Your task to perform on an android device: Clear all items from cart on target.com. Search for logitech g910 on target.com, select the first entry, add it to the cart, then select checkout. Image 0: 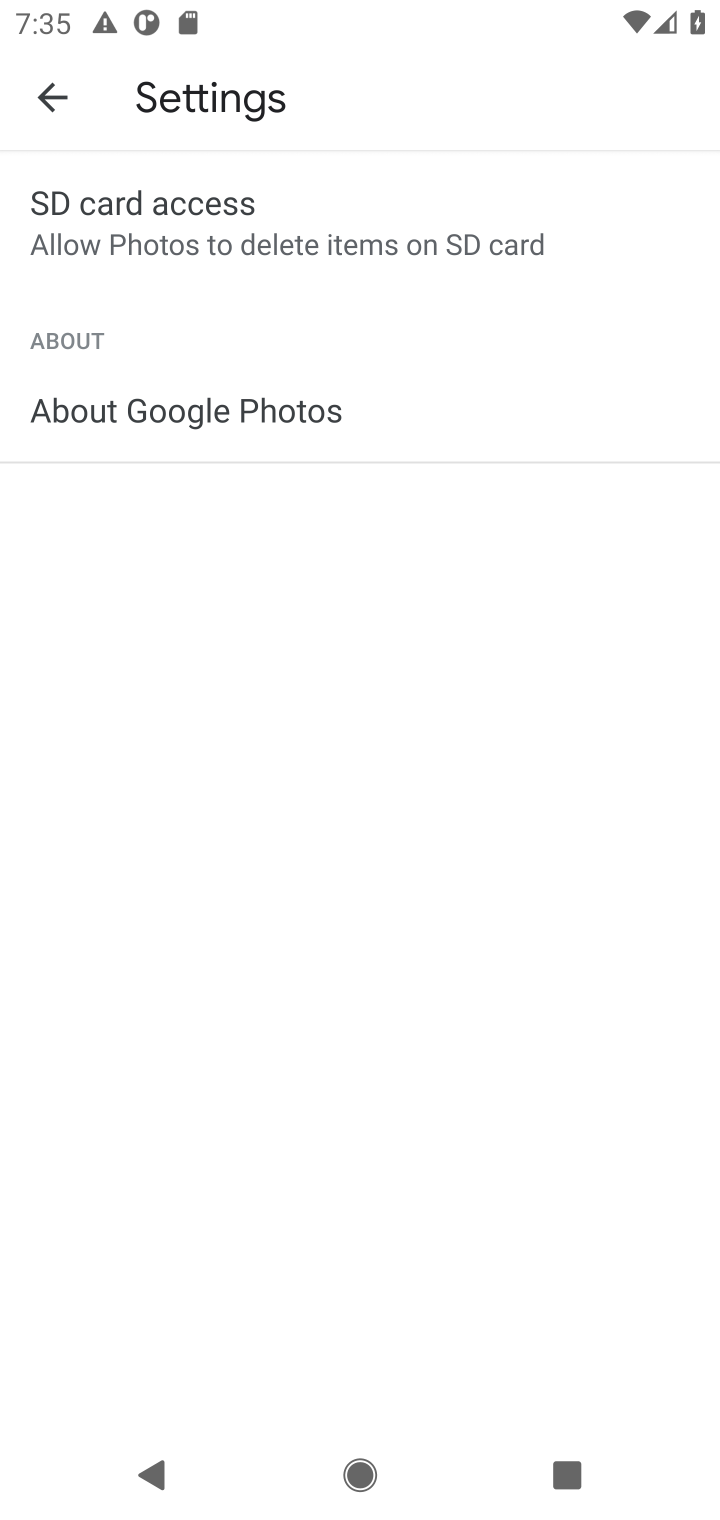
Step 0: press home button
Your task to perform on an android device: Clear all items from cart on target.com. Search for logitech g910 on target.com, select the first entry, add it to the cart, then select checkout. Image 1: 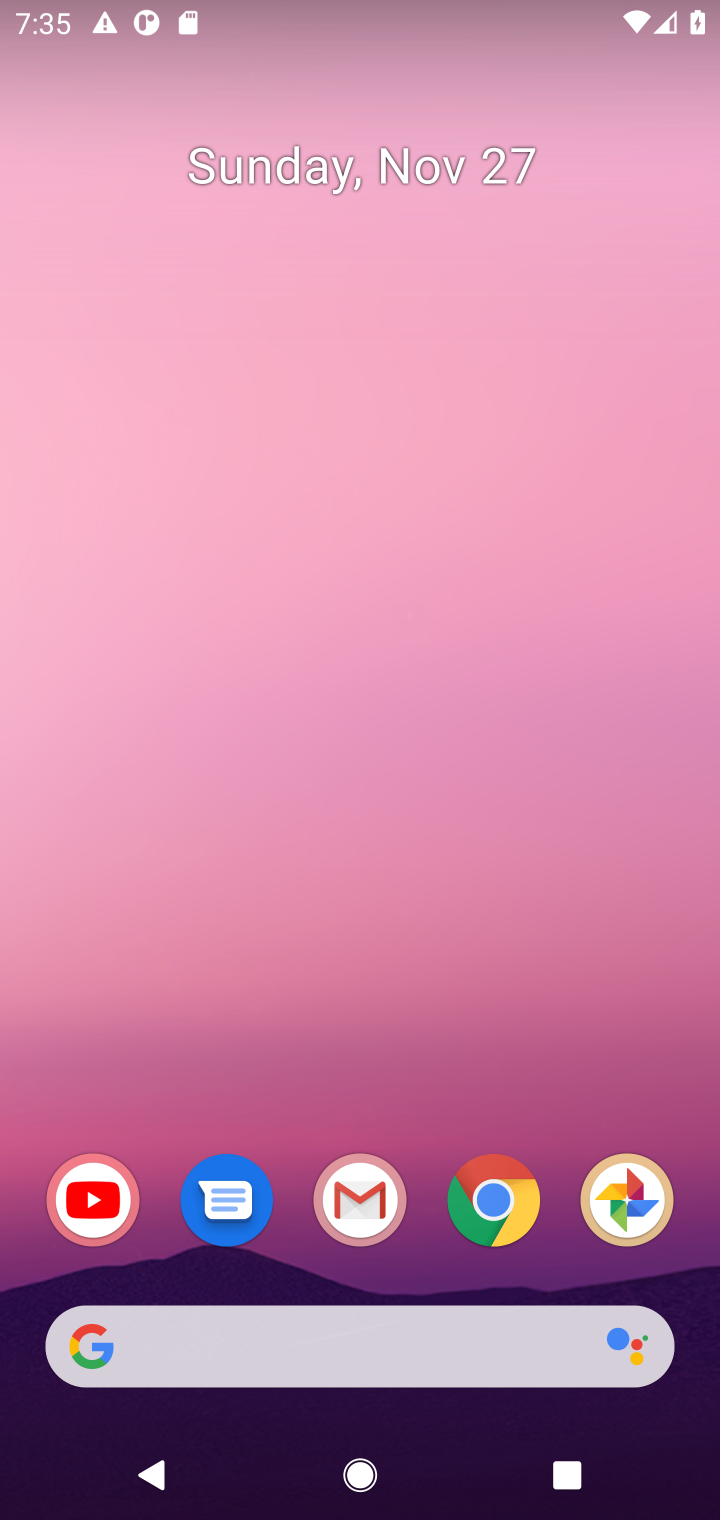
Step 1: click (499, 1204)
Your task to perform on an android device: Clear all items from cart on target.com. Search for logitech g910 on target.com, select the first entry, add it to the cart, then select checkout. Image 2: 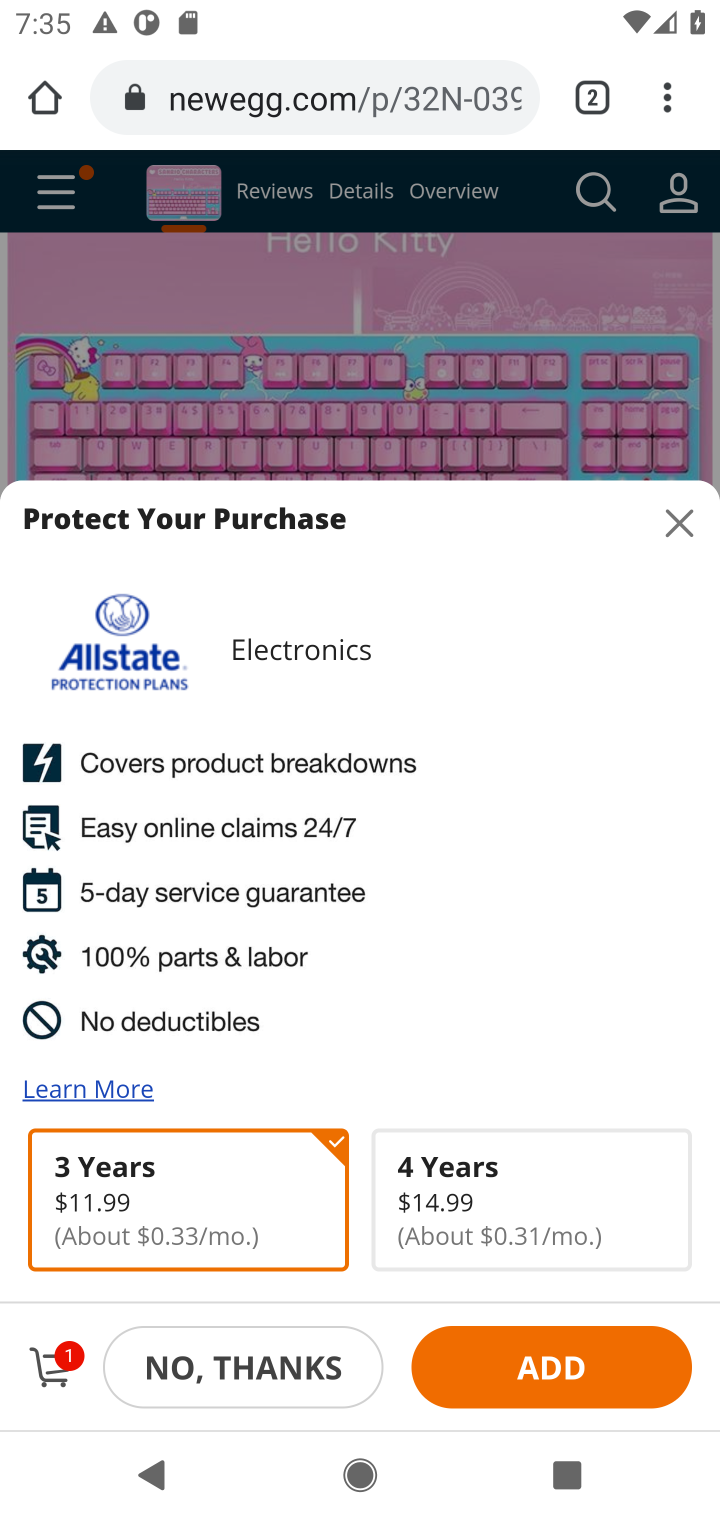
Step 2: click (283, 108)
Your task to perform on an android device: Clear all items from cart on target.com. Search for logitech g910 on target.com, select the first entry, add it to the cart, then select checkout. Image 3: 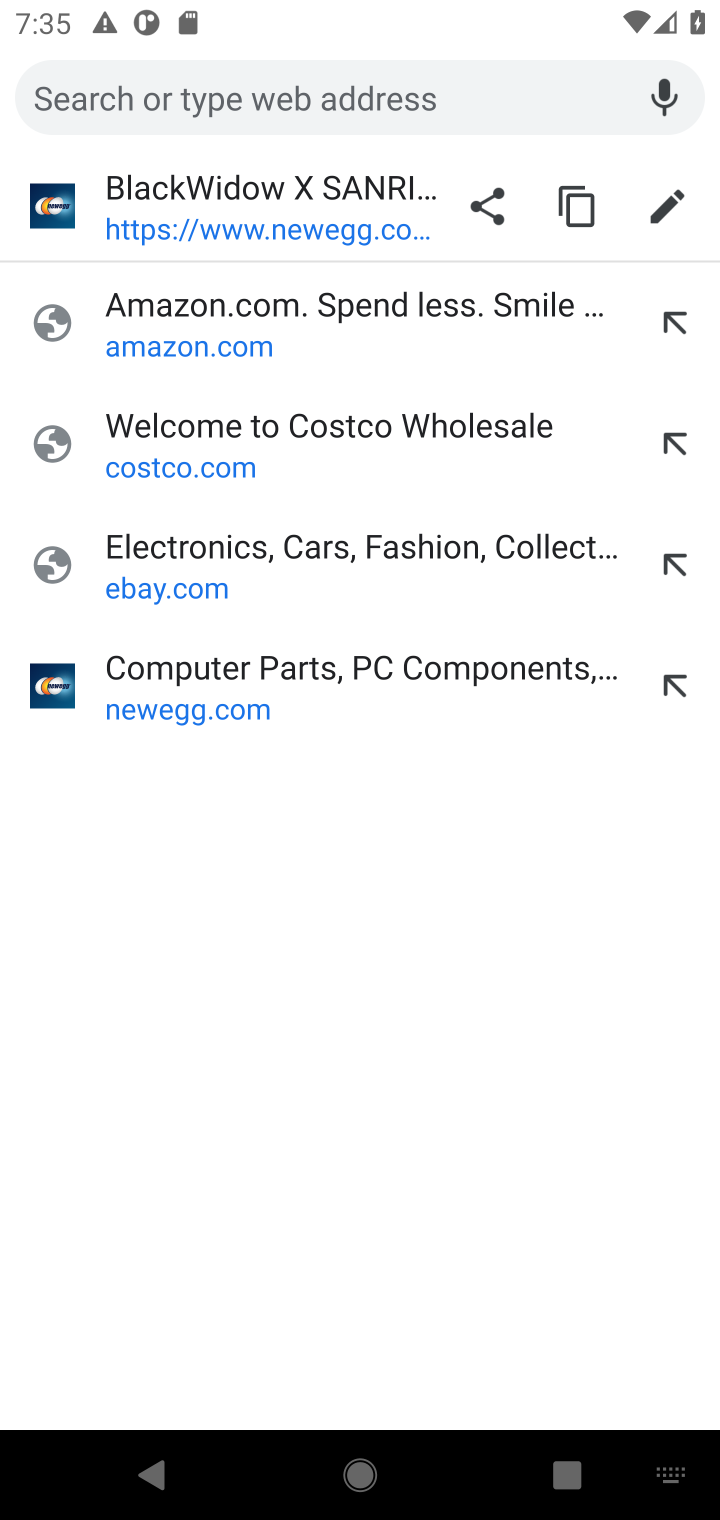
Step 3: type "target.com"
Your task to perform on an android device: Clear all items from cart on target.com. Search for logitech g910 on target.com, select the first entry, add it to the cart, then select checkout. Image 4: 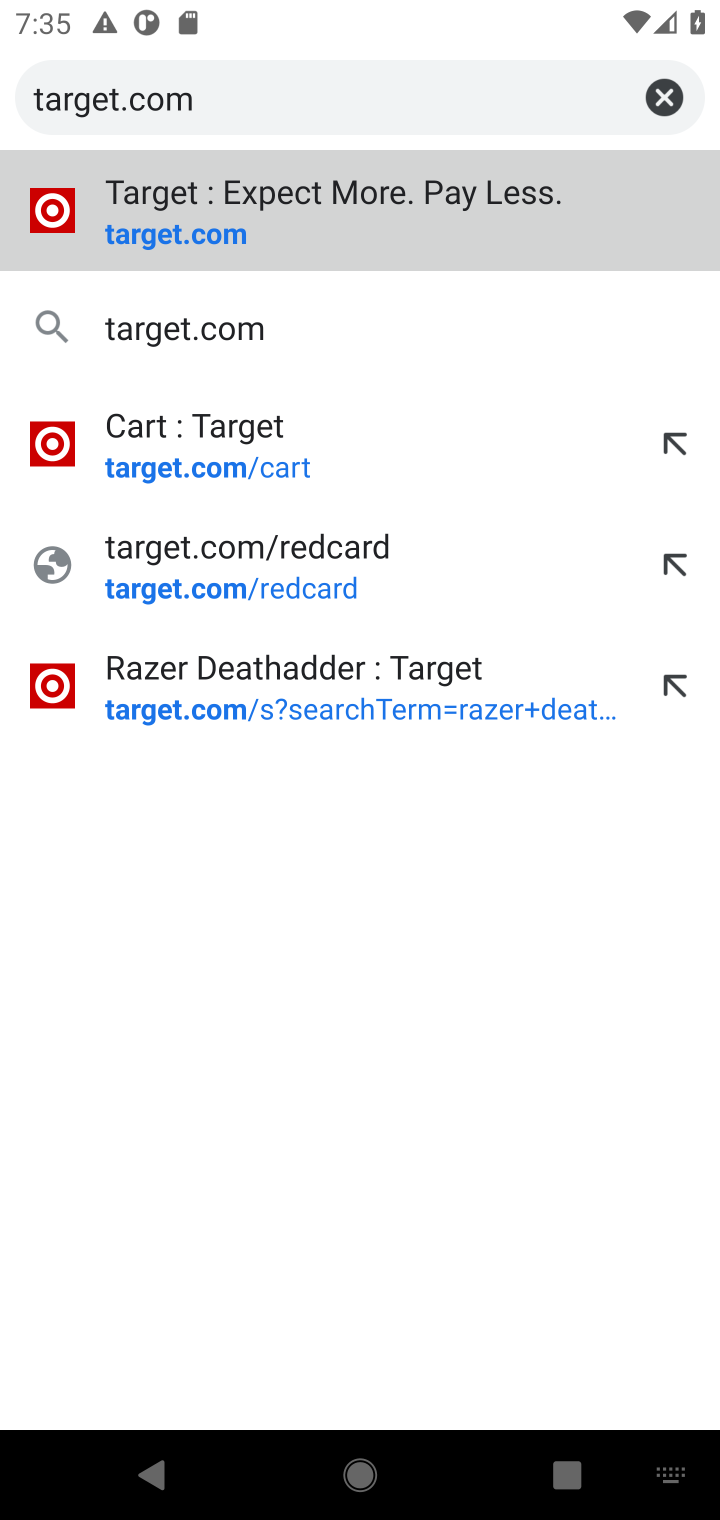
Step 4: click (174, 228)
Your task to perform on an android device: Clear all items from cart on target.com. Search for logitech g910 on target.com, select the first entry, add it to the cart, then select checkout. Image 5: 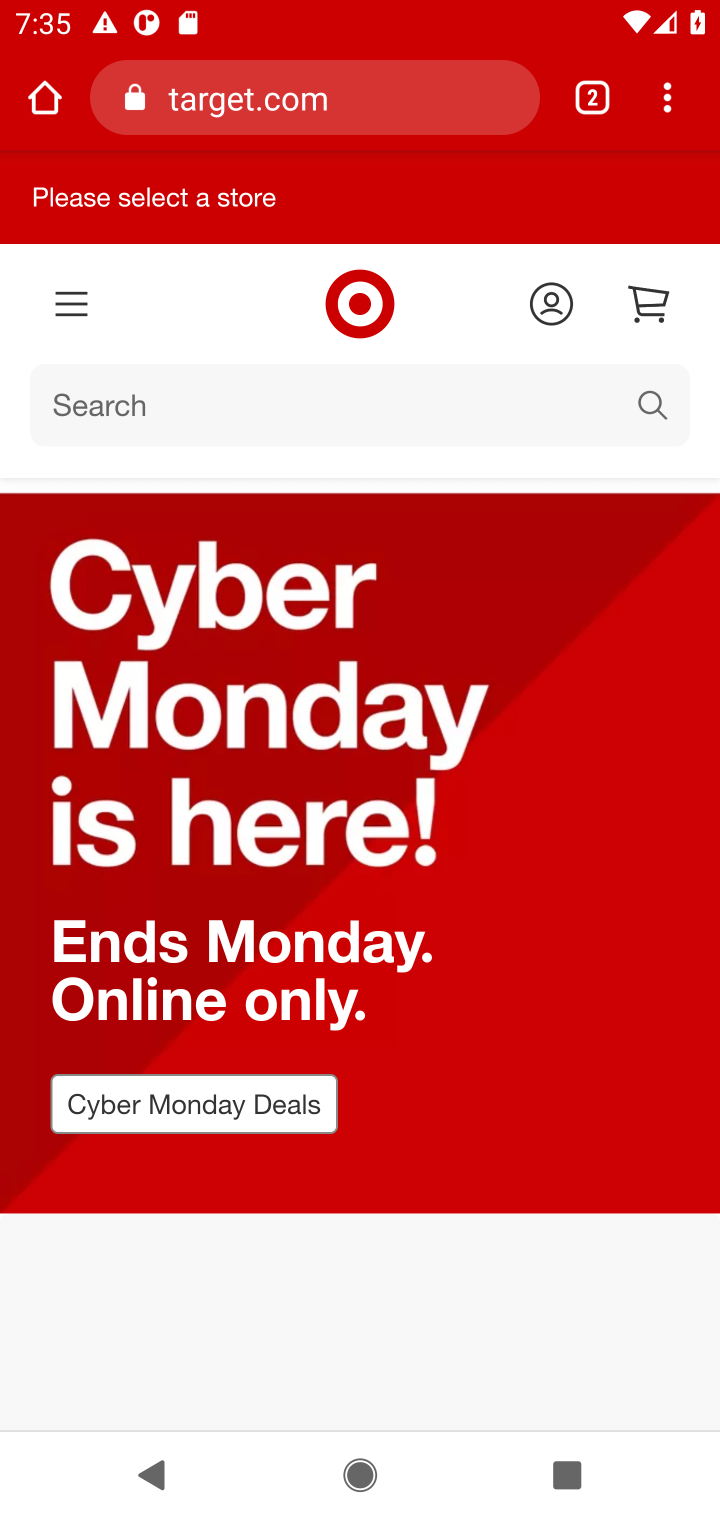
Step 5: click (646, 307)
Your task to perform on an android device: Clear all items from cart on target.com. Search for logitech g910 on target.com, select the first entry, add it to the cart, then select checkout. Image 6: 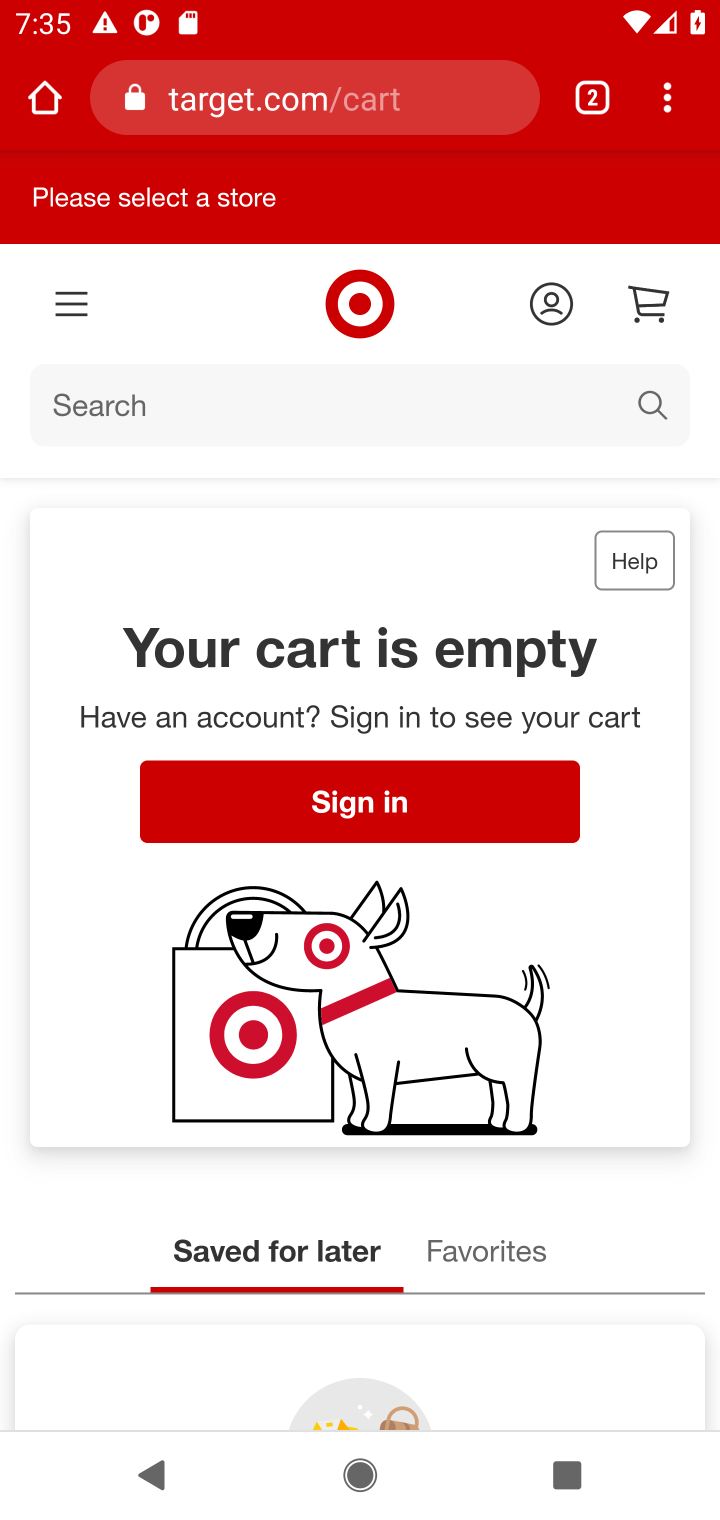
Step 6: click (631, 412)
Your task to perform on an android device: Clear all items from cart on target.com. Search for logitech g910 on target.com, select the first entry, add it to the cart, then select checkout. Image 7: 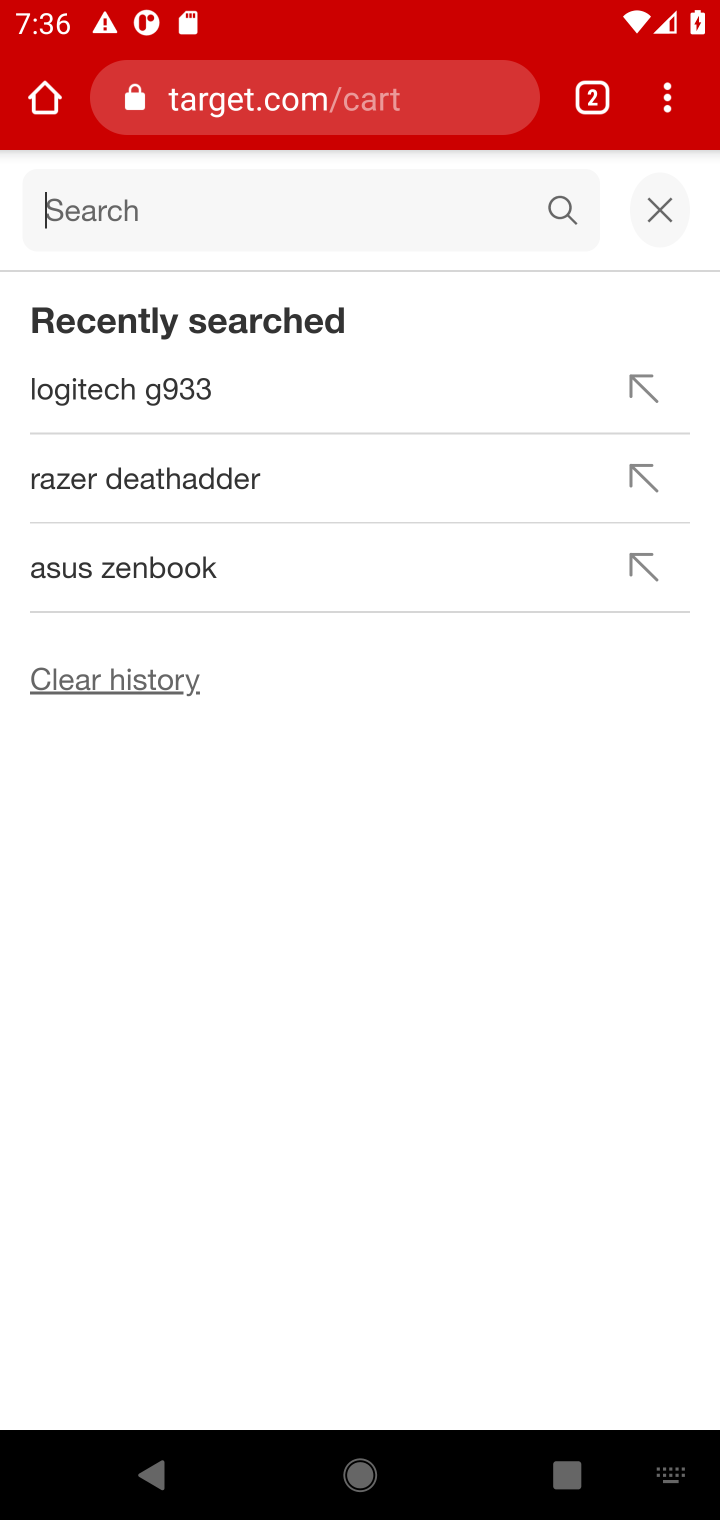
Step 7: type "logitech g910 "
Your task to perform on an android device: Clear all items from cart on target.com. Search for logitech g910 on target.com, select the first entry, add it to the cart, then select checkout. Image 8: 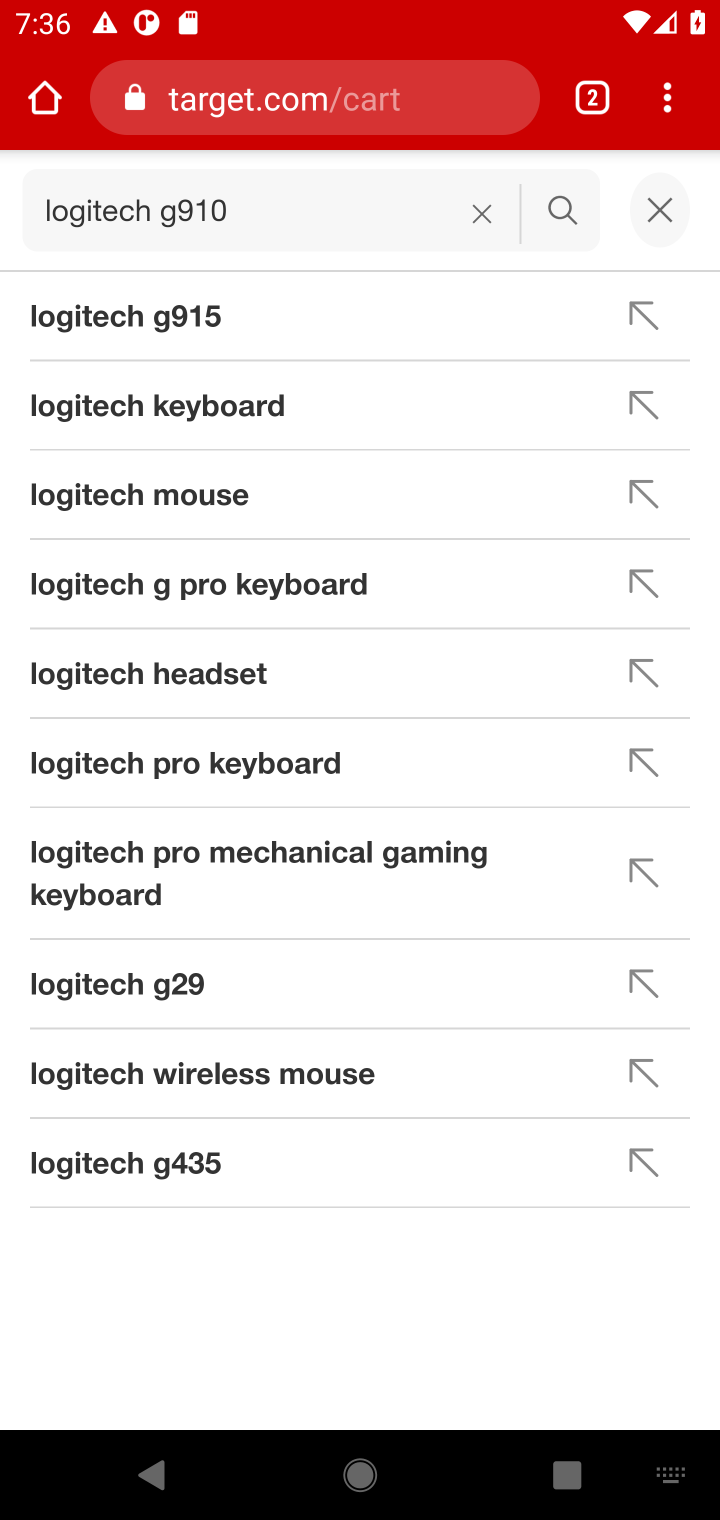
Step 8: click (558, 205)
Your task to perform on an android device: Clear all items from cart on target.com. Search for logitech g910 on target.com, select the first entry, add it to the cart, then select checkout. Image 9: 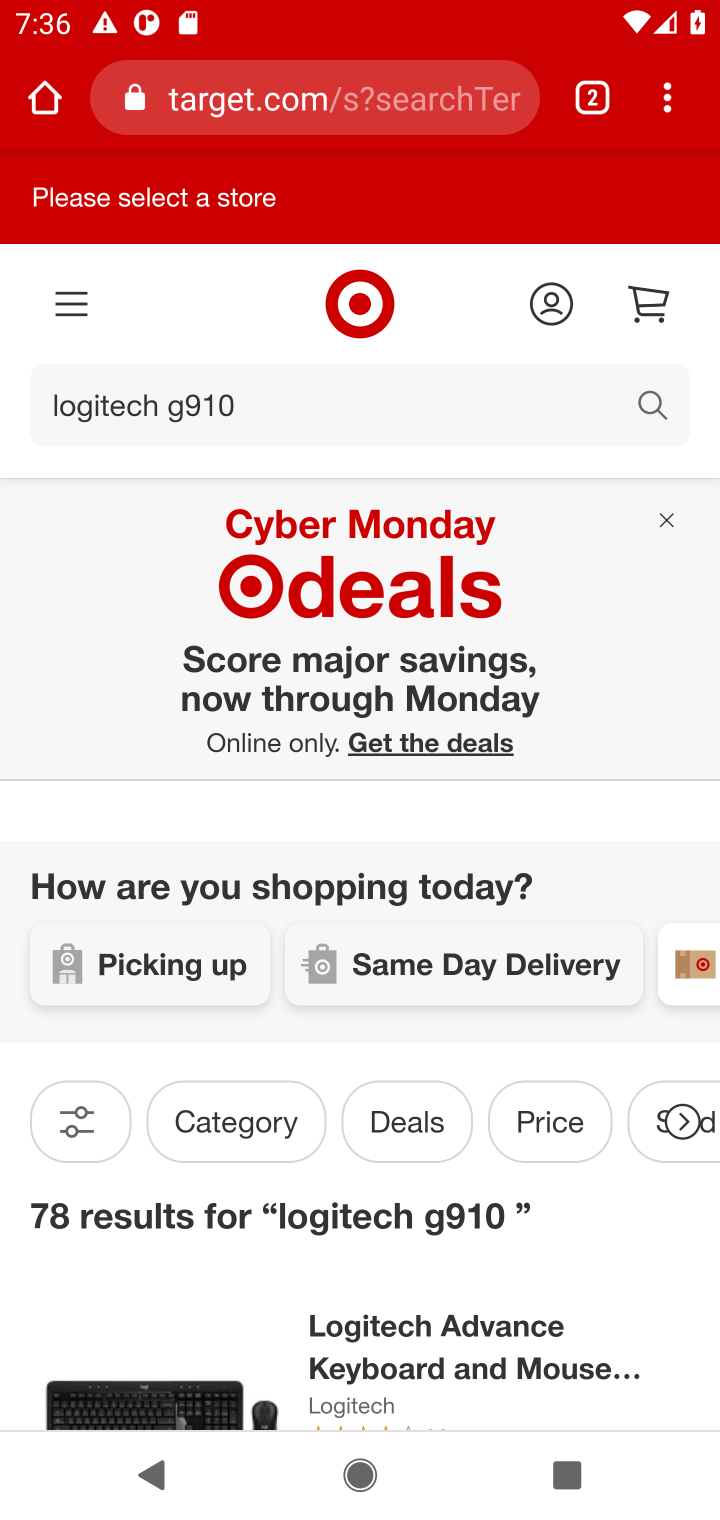
Step 9: task complete